Your task to perform on an android device: What's the weather going to be tomorrow? Image 0: 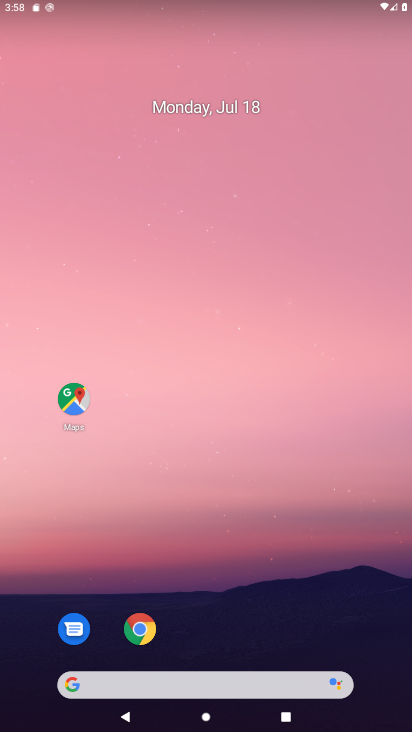
Step 0: drag from (195, 632) to (235, 118)
Your task to perform on an android device: What's the weather going to be tomorrow? Image 1: 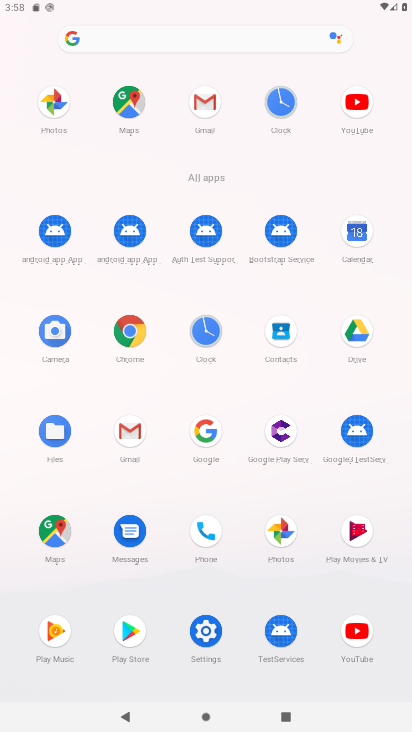
Step 1: click (207, 425)
Your task to perform on an android device: What's the weather going to be tomorrow? Image 2: 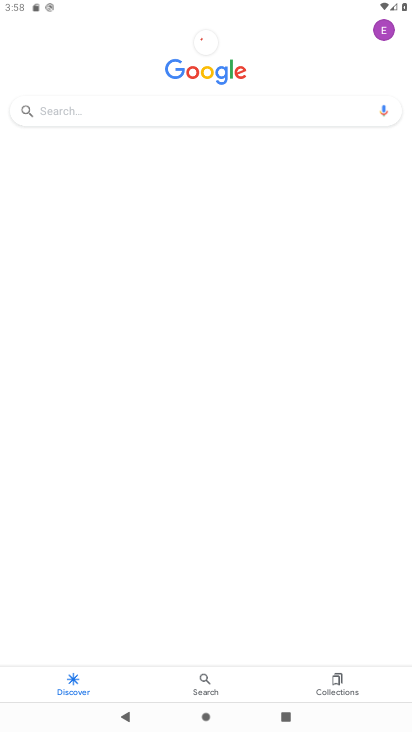
Step 2: click (192, 118)
Your task to perform on an android device: What's the weather going to be tomorrow? Image 3: 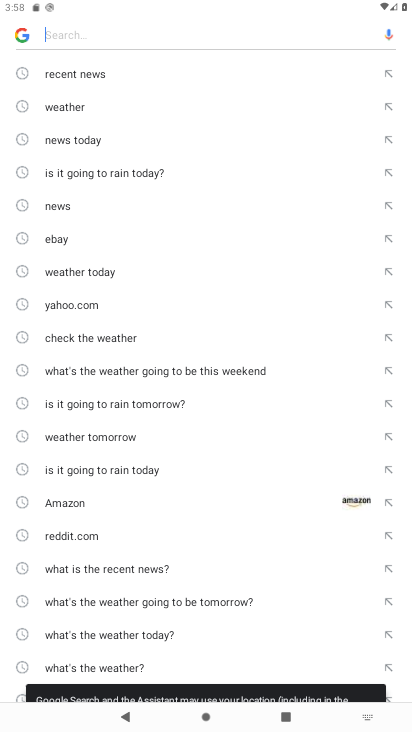
Step 3: click (90, 105)
Your task to perform on an android device: What's the weather going to be tomorrow? Image 4: 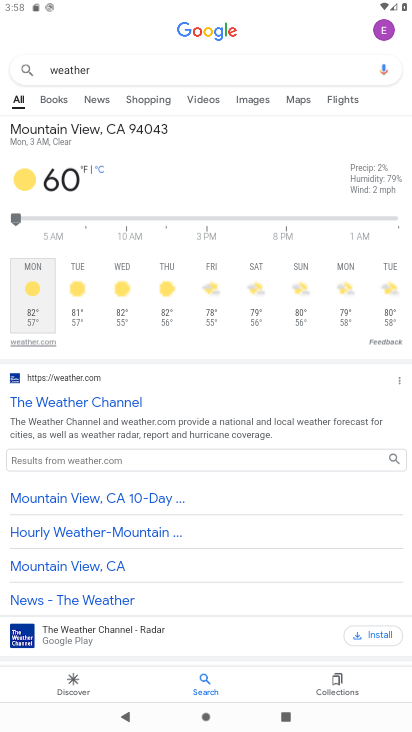
Step 4: task complete